Your task to perform on an android device: Show me popular videos on Youtube Image 0: 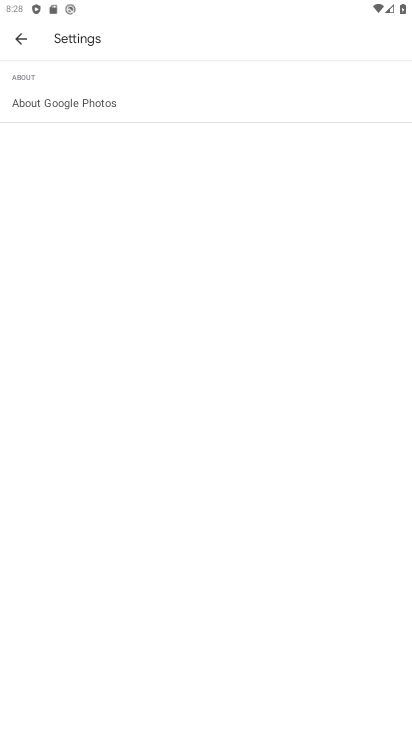
Step 0: press back button
Your task to perform on an android device: Show me popular videos on Youtube Image 1: 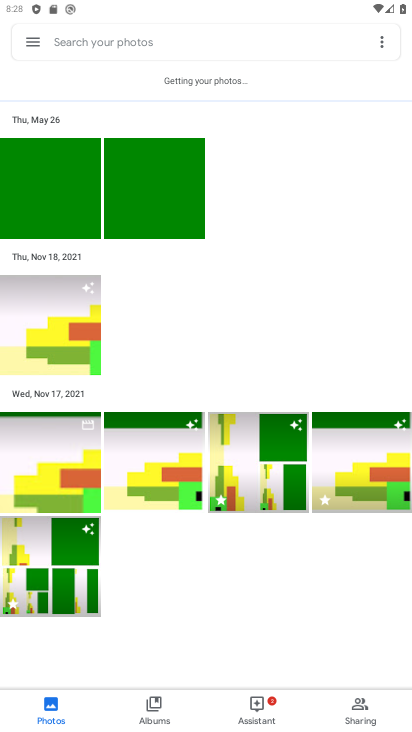
Step 1: press home button
Your task to perform on an android device: Show me popular videos on Youtube Image 2: 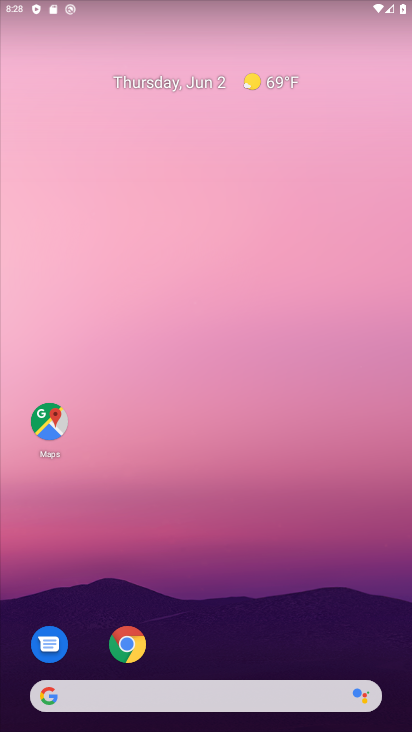
Step 2: drag from (290, 591) to (13, 141)
Your task to perform on an android device: Show me popular videos on Youtube Image 3: 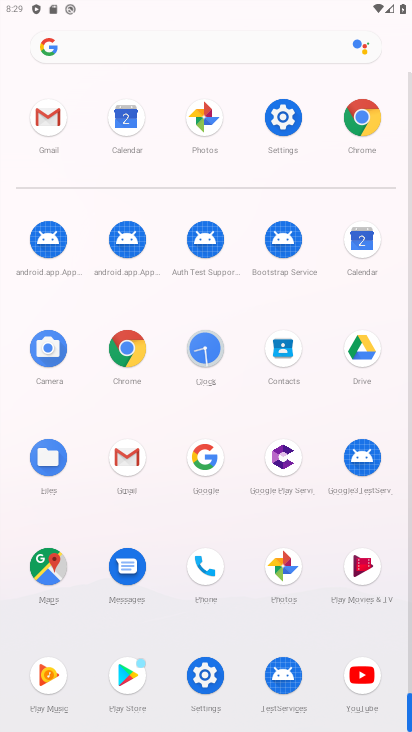
Step 3: drag from (10, 593) to (14, 273)
Your task to perform on an android device: Show me popular videos on Youtube Image 4: 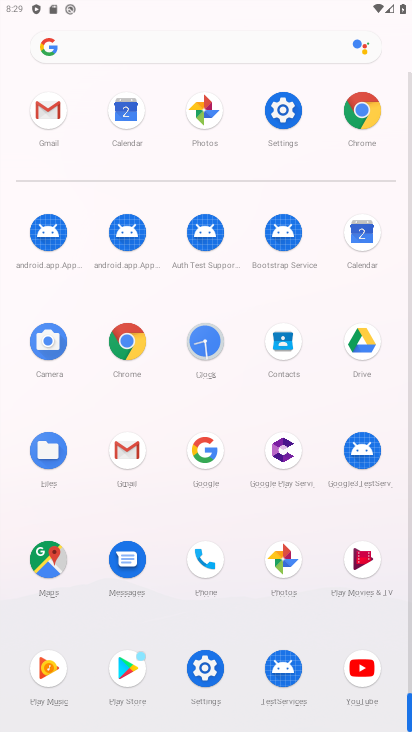
Step 4: click (361, 665)
Your task to perform on an android device: Show me popular videos on Youtube Image 5: 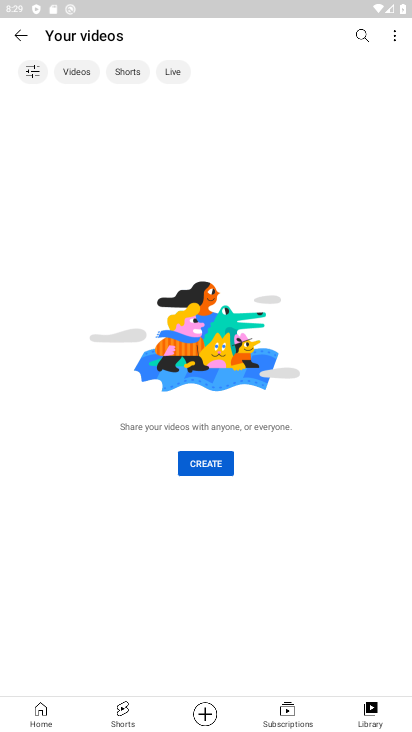
Step 5: click (20, 35)
Your task to perform on an android device: Show me popular videos on Youtube Image 6: 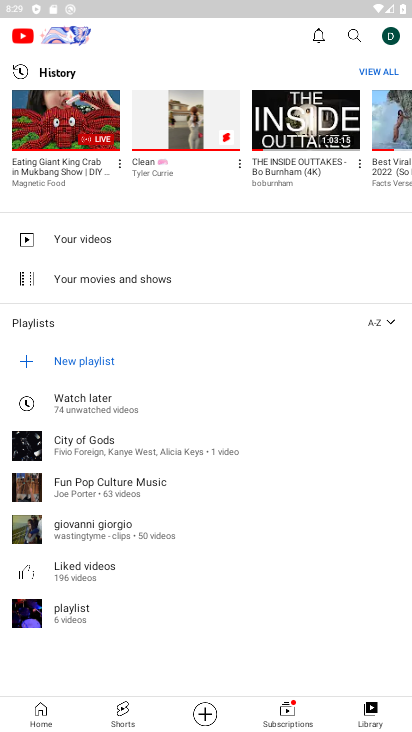
Step 6: click (38, 719)
Your task to perform on an android device: Show me popular videos on Youtube Image 7: 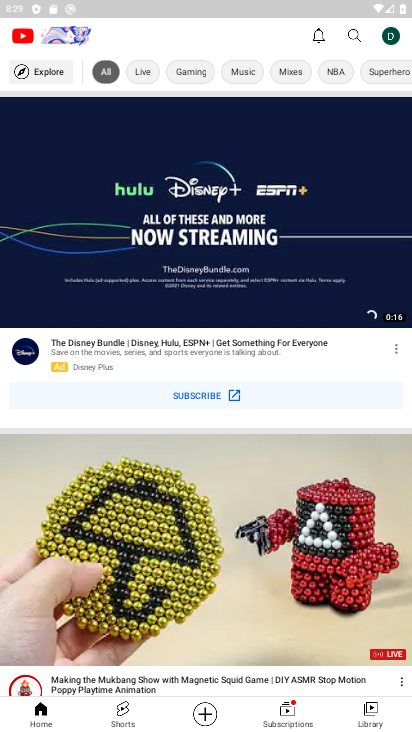
Step 7: click (51, 67)
Your task to perform on an android device: Show me popular videos on Youtube Image 8: 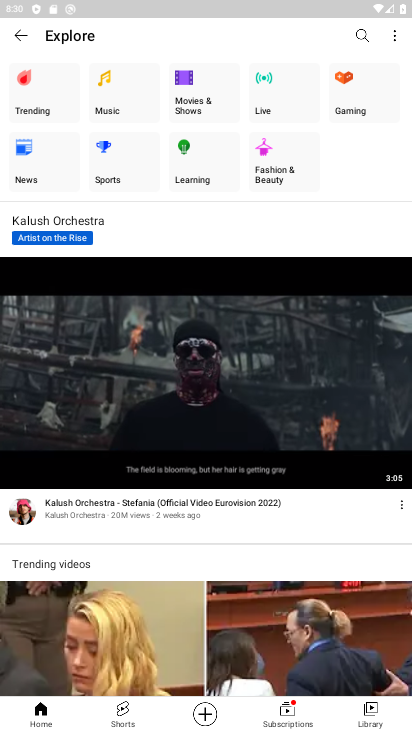
Step 8: task complete